Your task to perform on an android device: Go to calendar. Show me events next week Image 0: 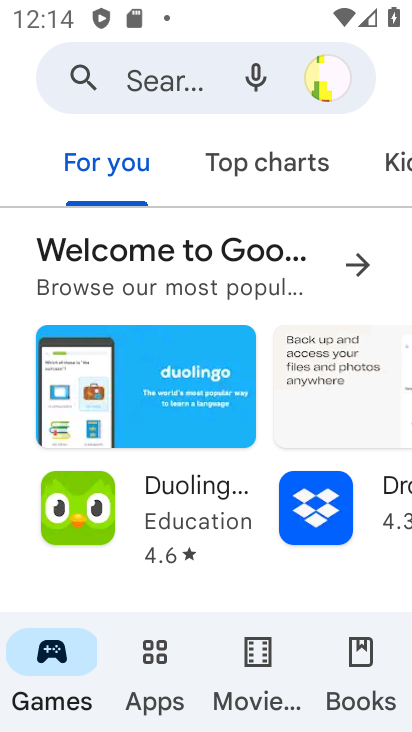
Step 0: press back button
Your task to perform on an android device: Go to calendar. Show me events next week Image 1: 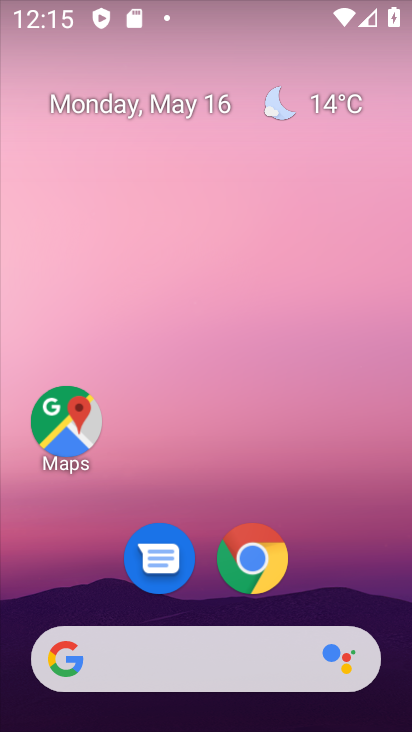
Step 1: drag from (378, 587) to (373, 143)
Your task to perform on an android device: Go to calendar. Show me events next week Image 2: 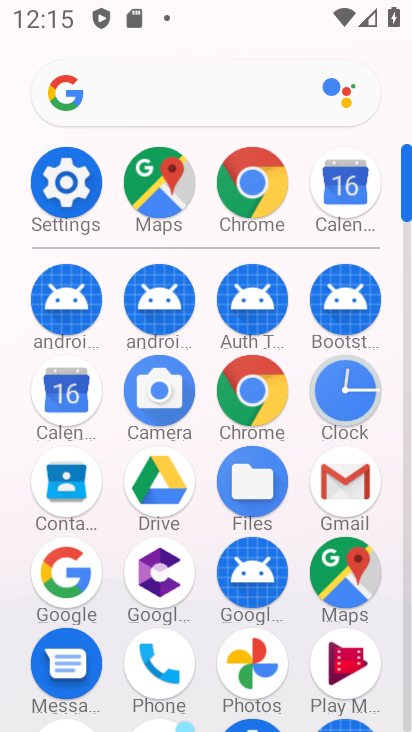
Step 2: click (59, 395)
Your task to perform on an android device: Go to calendar. Show me events next week Image 3: 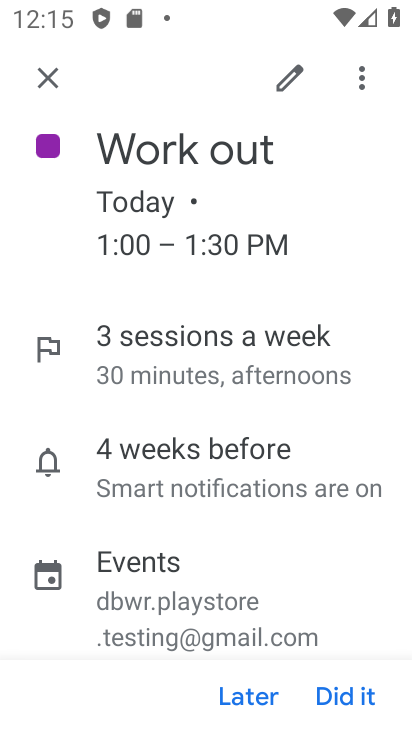
Step 3: click (47, 78)
Your task to perform on an android device: Go to calendar. Show me events next week Image 4: 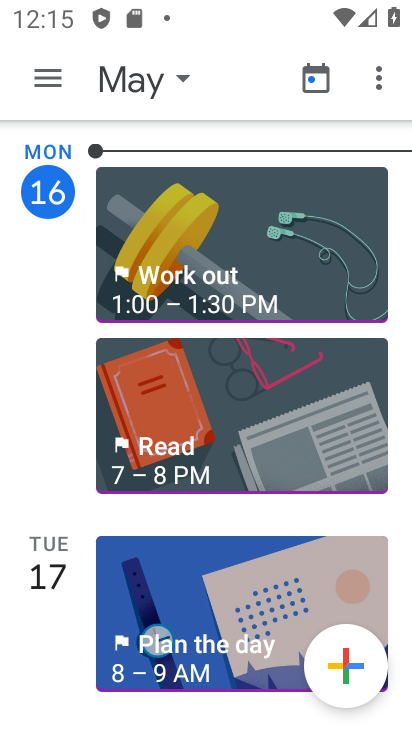
Step 4: click (187, 81)
Your task to perform on an android device: Go to calendar. Show me events next week Image 5: 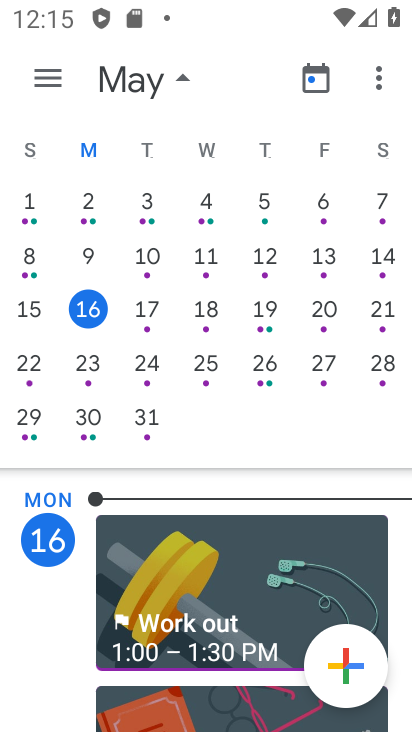
Step 5: click (93, 370)
Your task to perform on an android device: Go to calendar. Show me events next week Image 6: 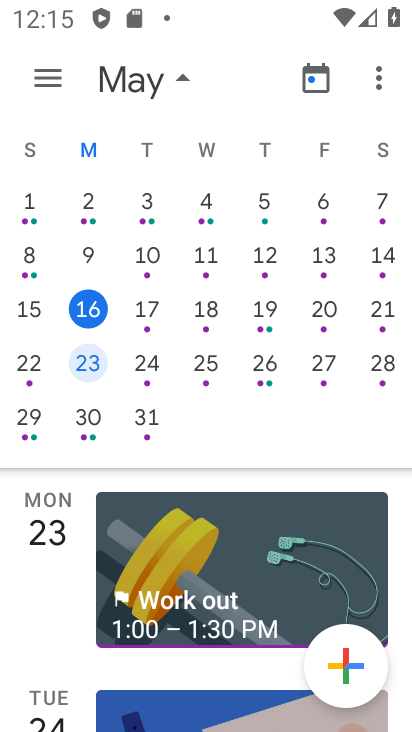
Step 6: task complete